Your task to perform on an android device: open app "Google Chat" Image 0: 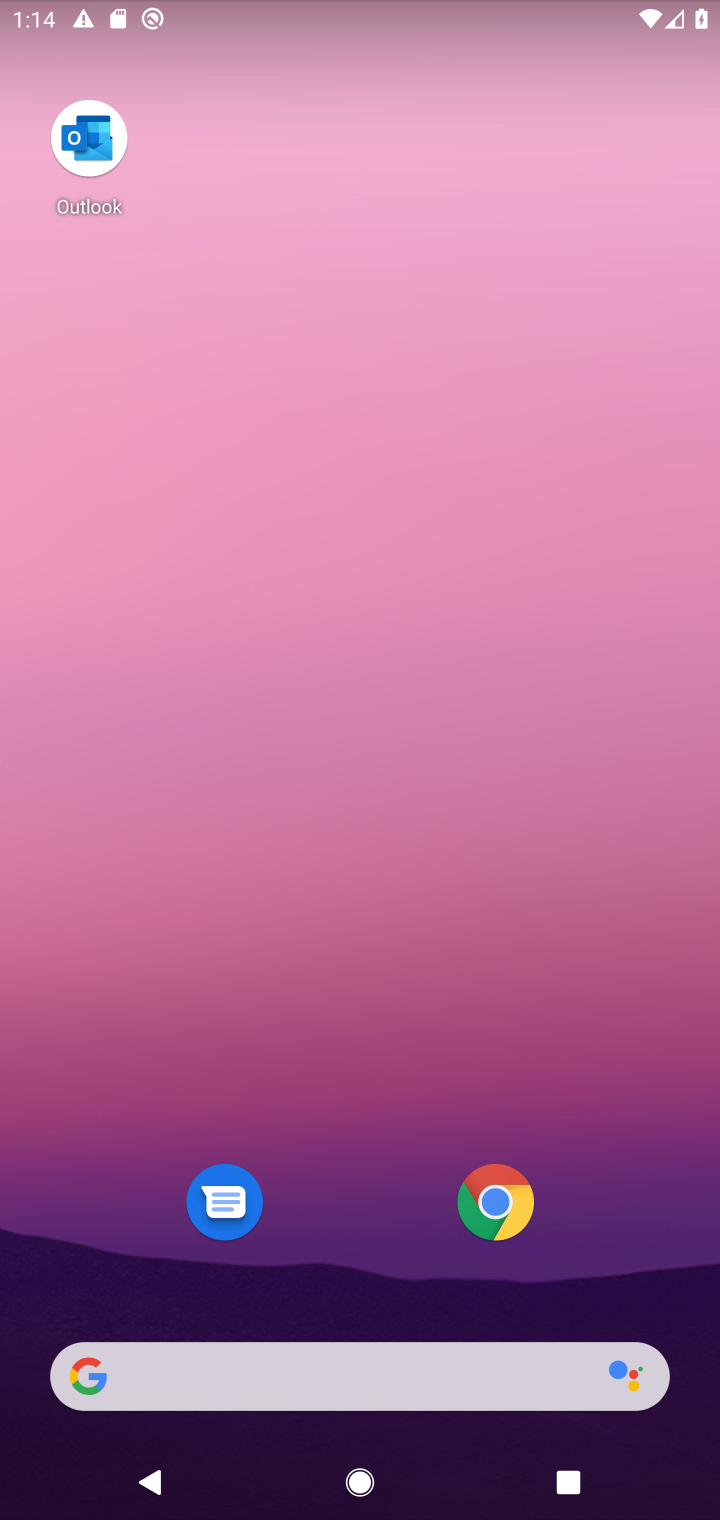
Step 0: drag from (433, 1326) to (342, 39)
Your task to perform on an android device: open app "Google Chat" Image 1: 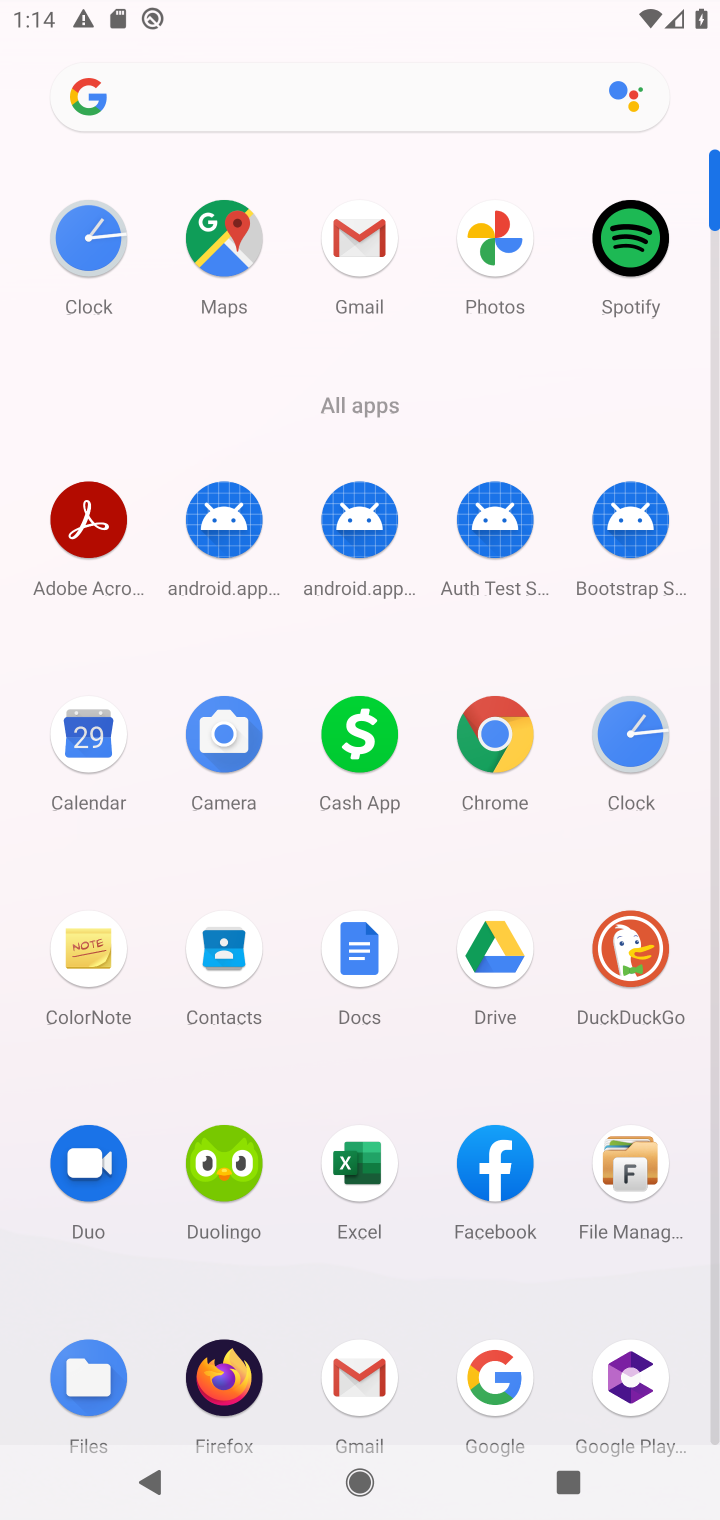
Step 1: click (273, 120)
Your task to perform on an android device: open app "Google Chat" Image 2: 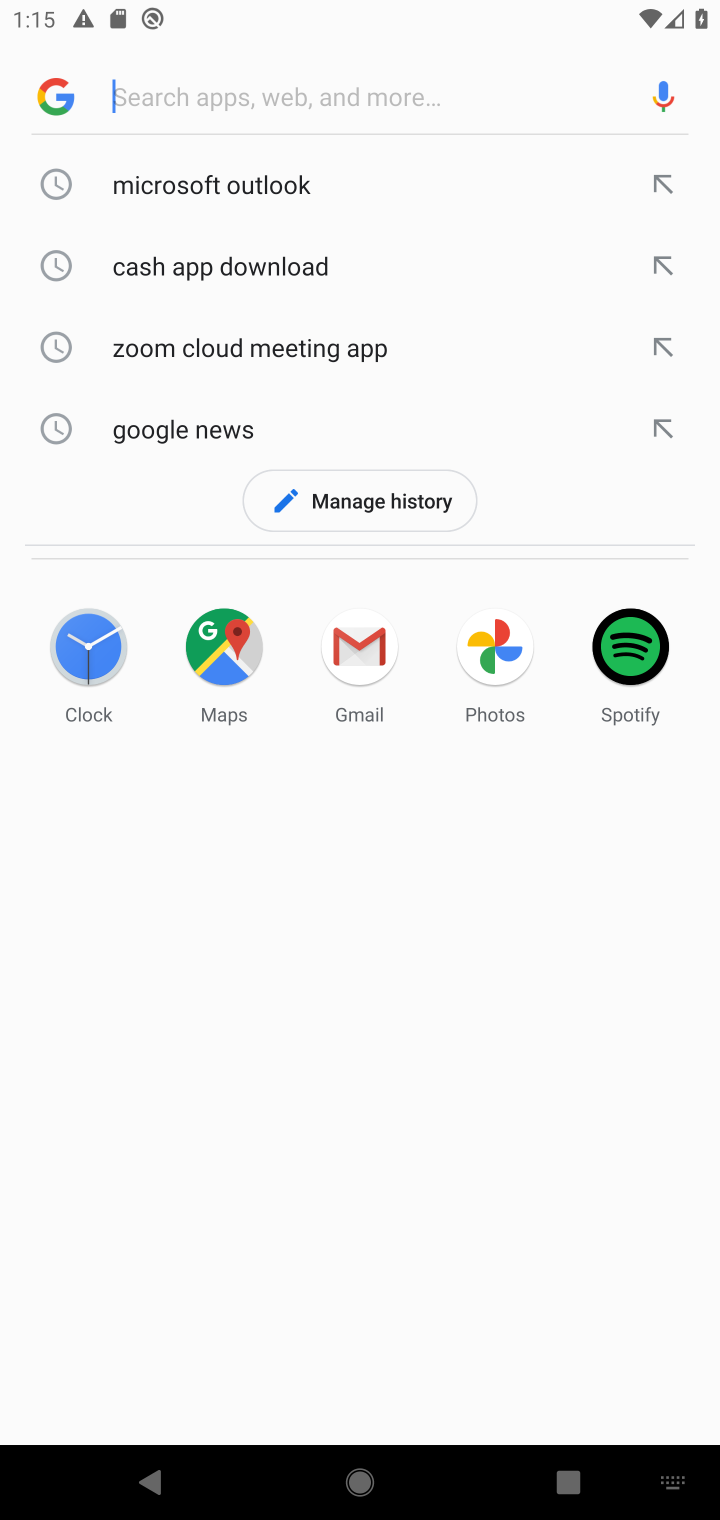
Step 2: type "google chat"
Your task to perform on an android device: open app "Google Chat" Image 3: 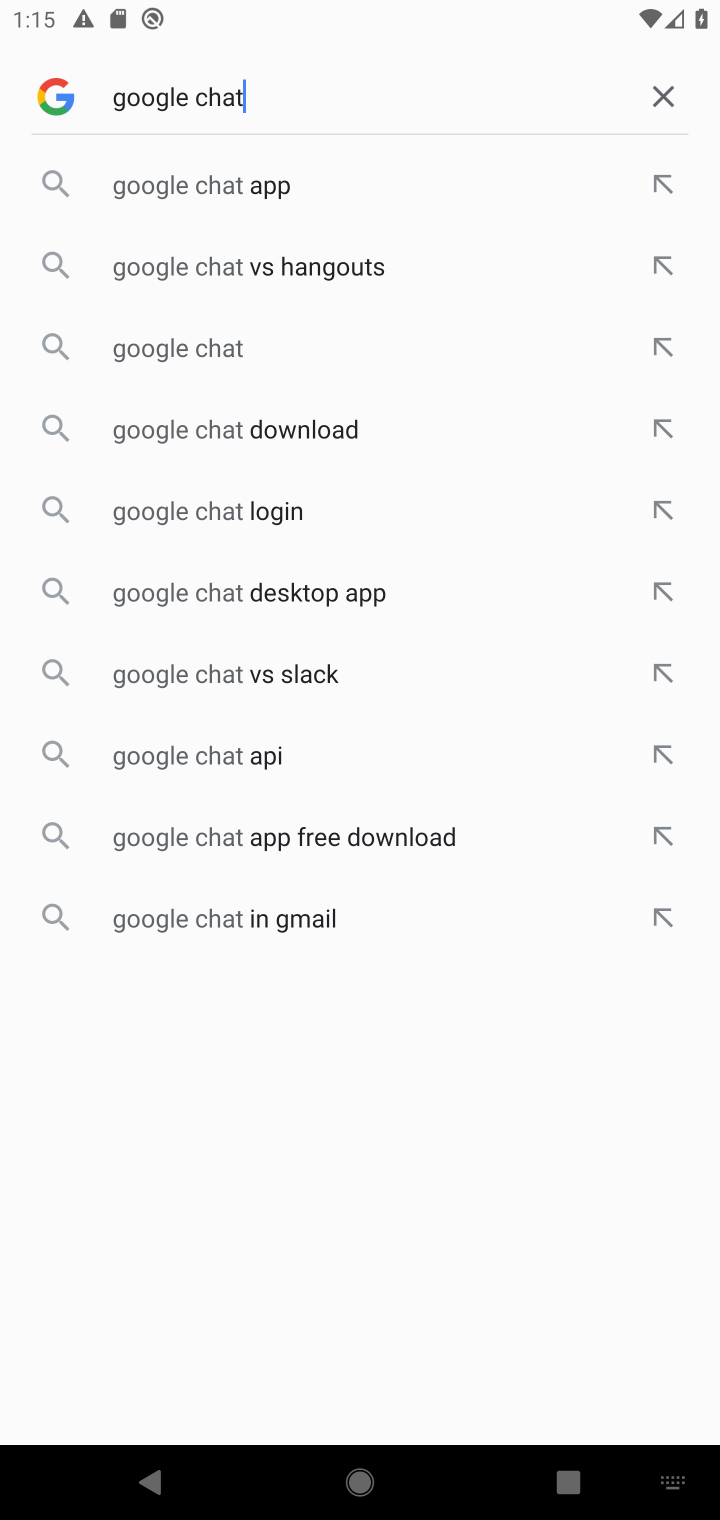
Step 3: click (276, 190)
Your task to perform on an android device: open app "Google Chat" Image 4: 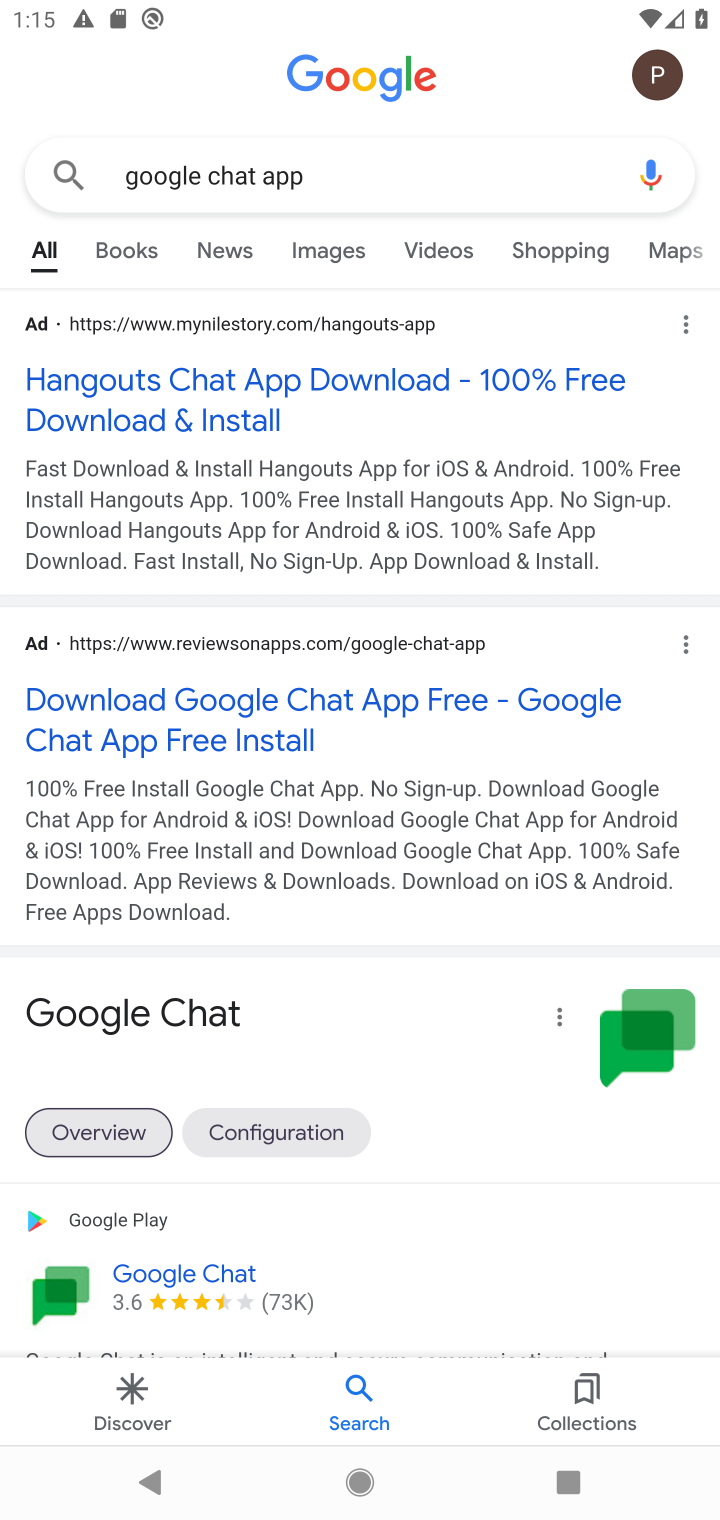
Step 4: drag from (524, 1169) to (436, 408)
Your task to perform on an android device: open app "Google Chat" Image 5: 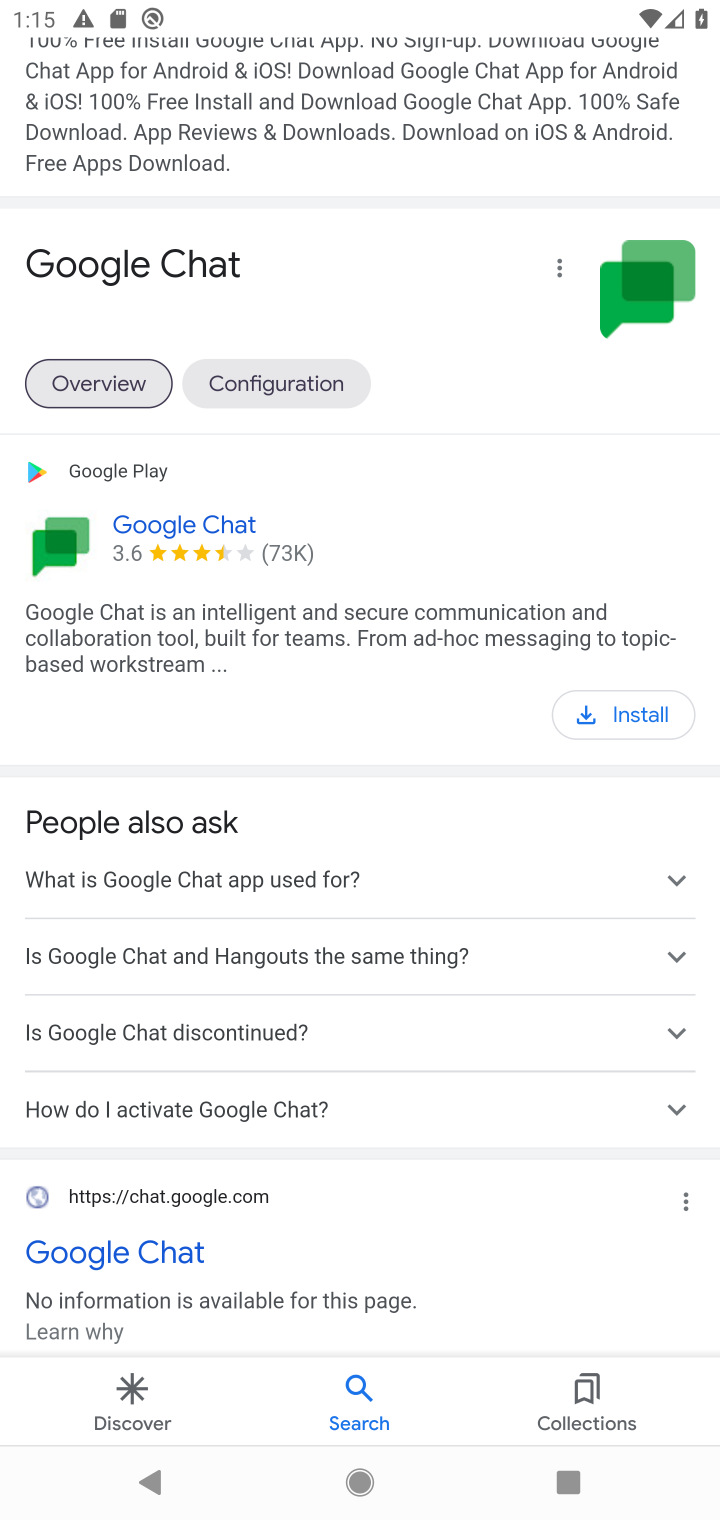
Step 5: click (617, 715)
Your task to perform on an android device: open app "Google Chat" Image 6: 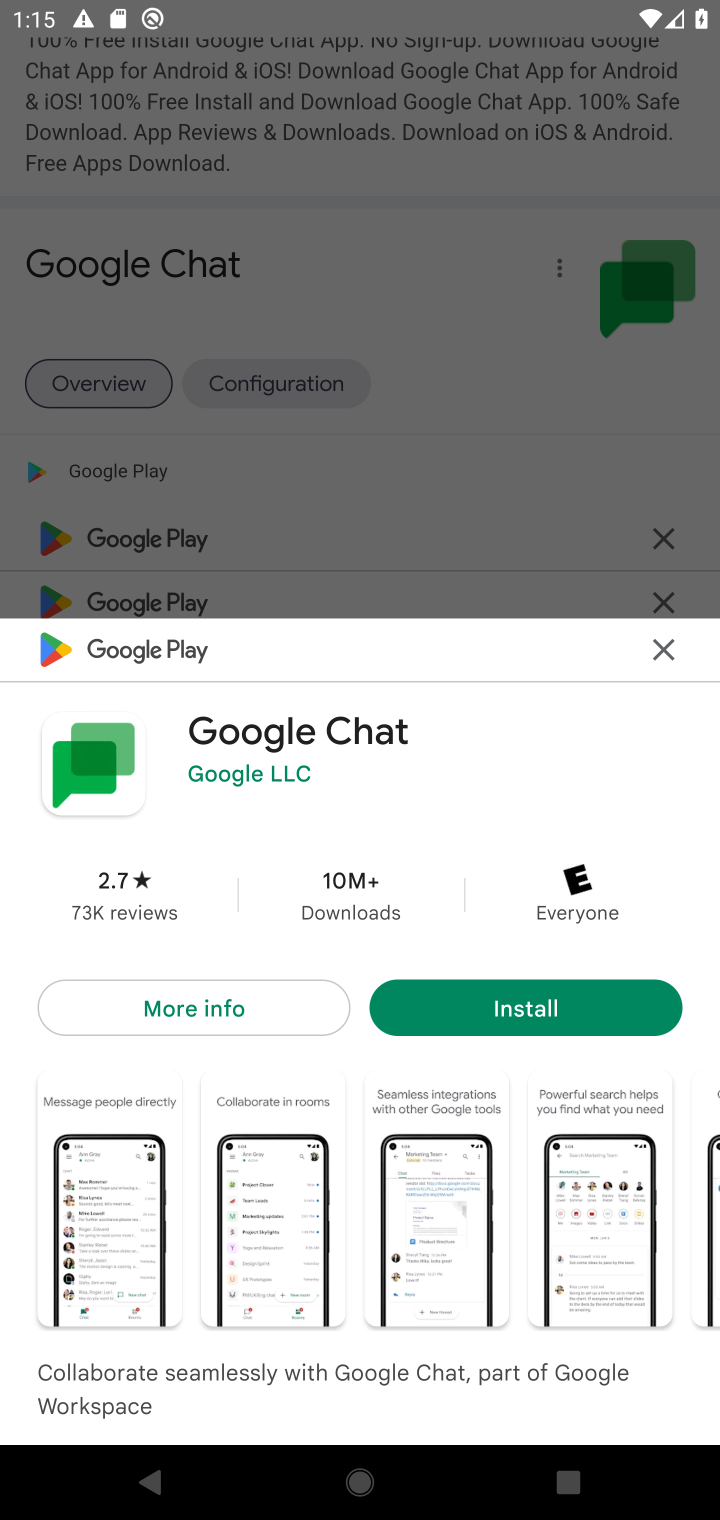
Step 6: click (552, 990)
Your task to perform on an android device: open app "Google Chat" Image 7: 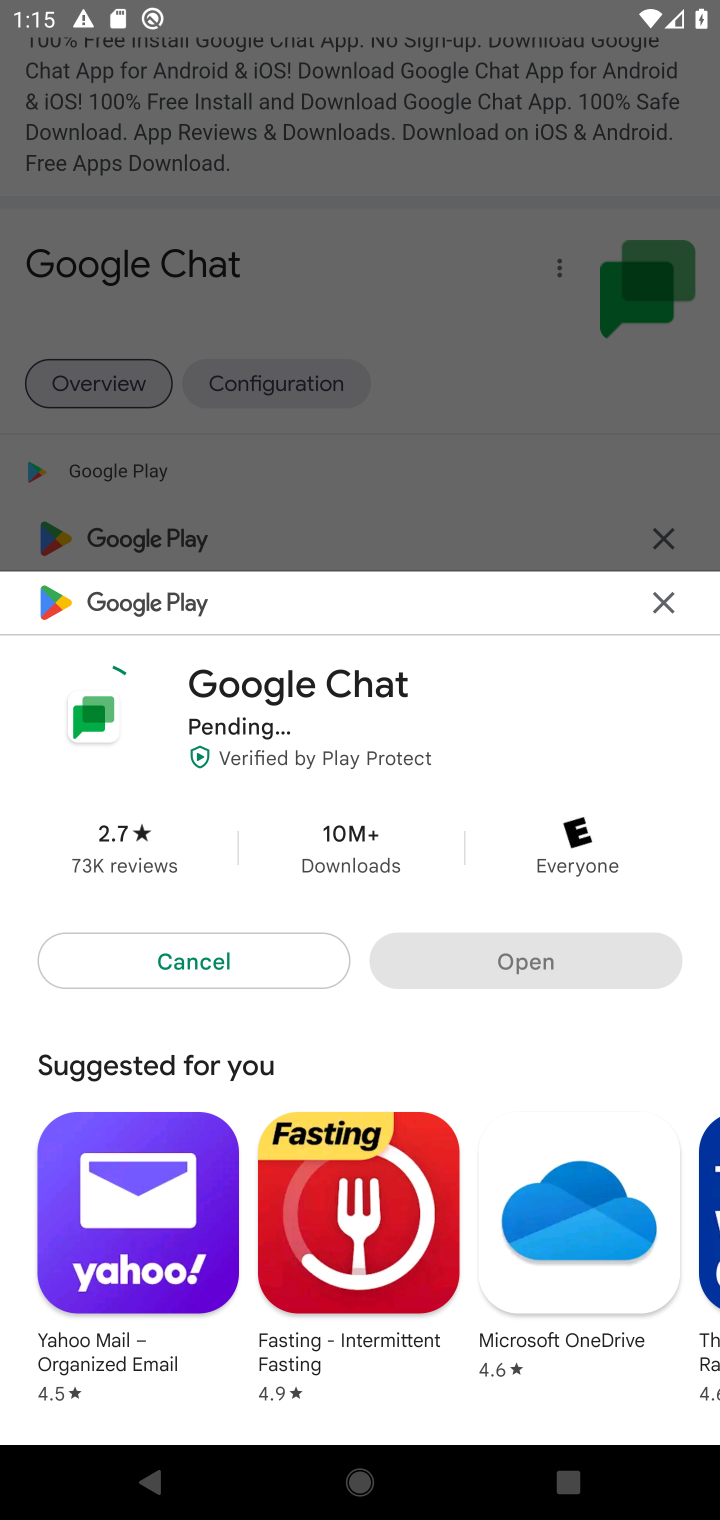
Step 7: task complete